Your task to perform on an android device: Go to display settings Image 0: 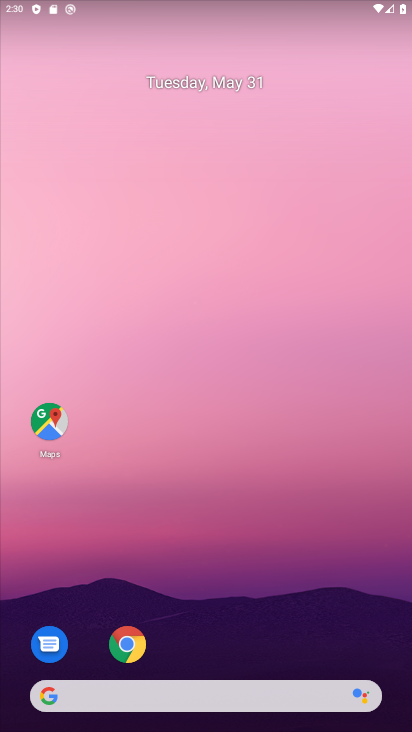
Step 0: drag from (104, 729) to (182, 131)
Your task to perform on an android device: Go to display settings Image 1: 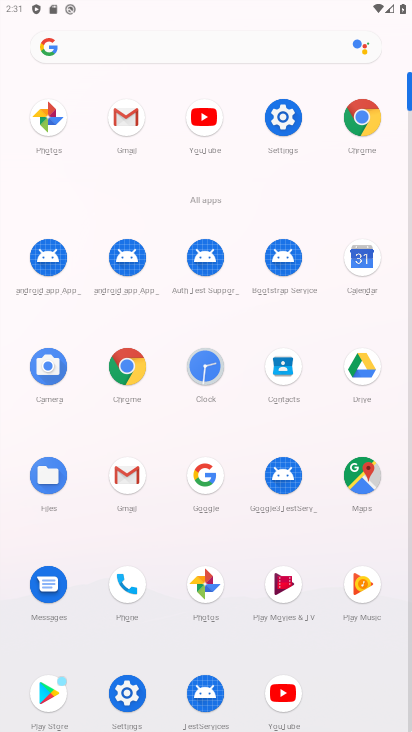
Step 1: click (111, 697)
Your task to perform on an android device: Go to display settings Image 2: 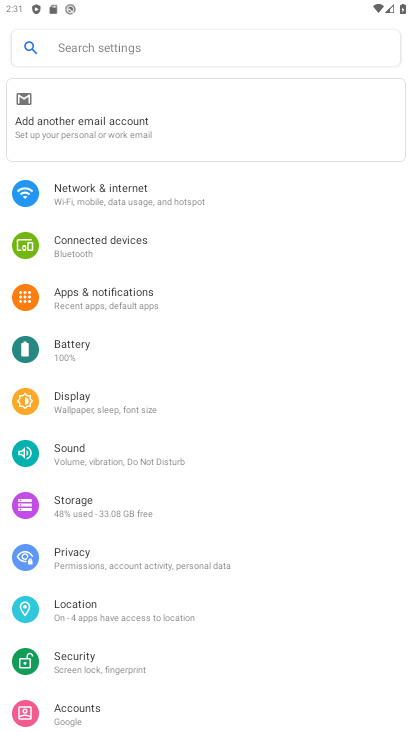
Step 2: drag from (230, 702) to (254, 263)
Your task to perform on an android device: Go to display settings Image 3: 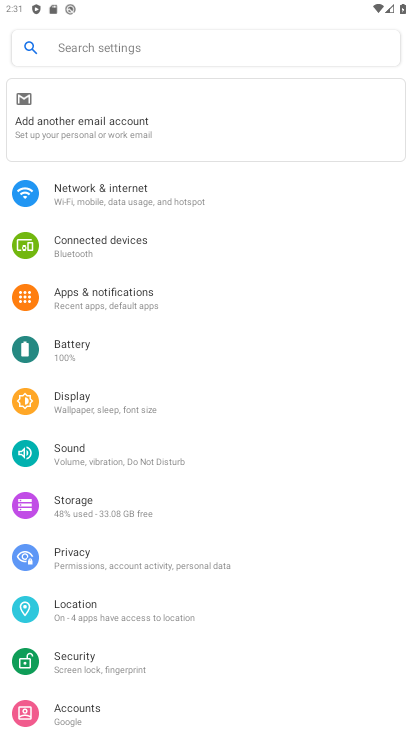
Step 3: drag from (151, 639) to (163, 527)
Your task to perform on an android device: Go to display settings Image 4: 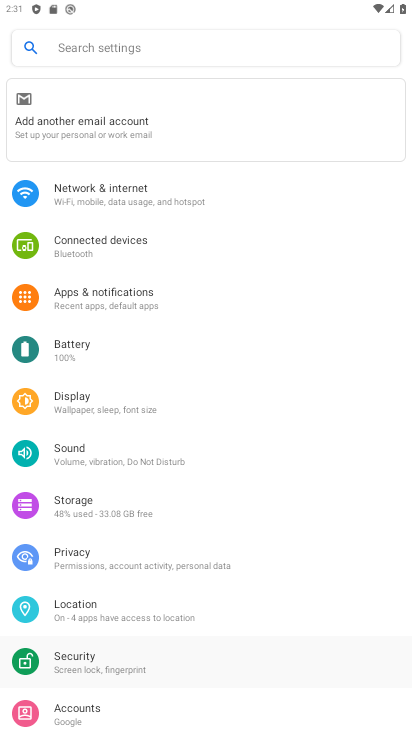
Step 4: click (136, 416)
Your task to perform on an android device: Go to display settings Image 5: 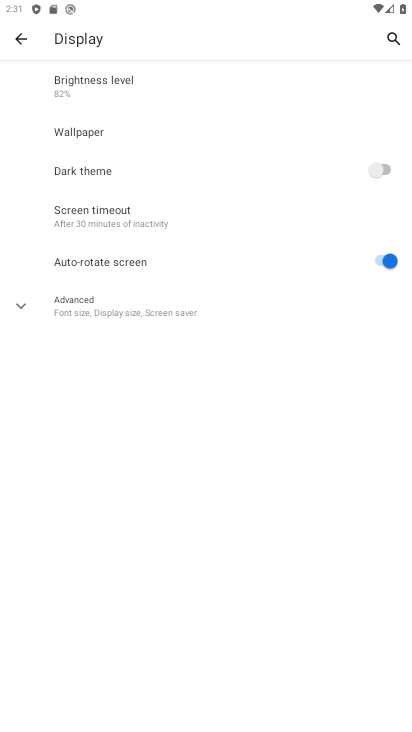
Step 5: task complete